Your task to perform on an android device: set an alarm Image 0: 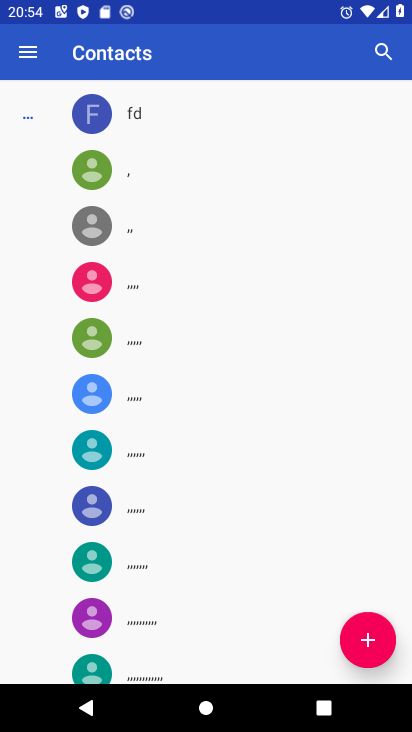
Step 0: press home button
Your task to perform on an android device: set an alarm Image 1: 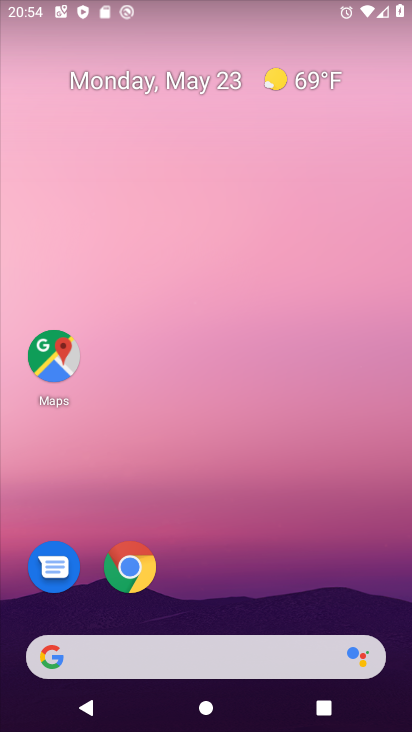
Step 1: drag from (244, 542) to (259, 6)
Your task to perform on an android device: set an alarm Image 2: 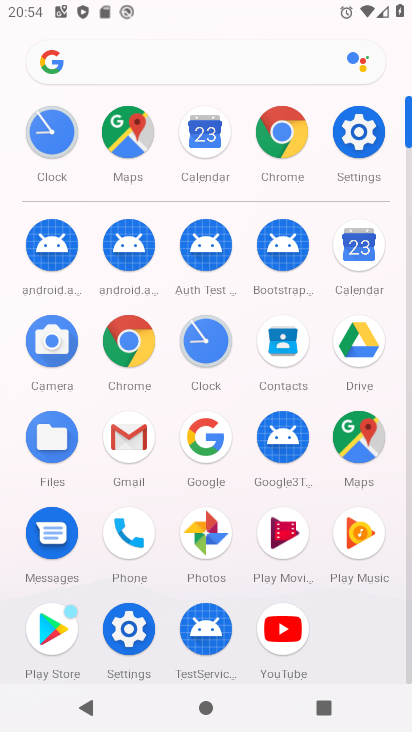
Step 2: click (224, 335)
Your task to perform on an android device: set an alarm Image 3: 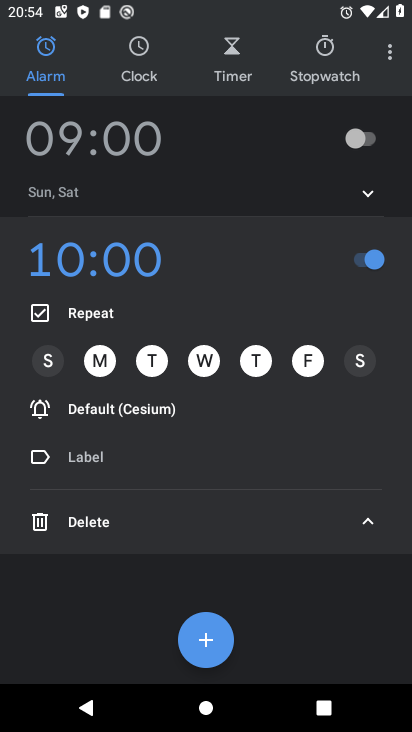
Step 3: click (99, 151)
Your task to perform on an android device: set an alarm Image 4: 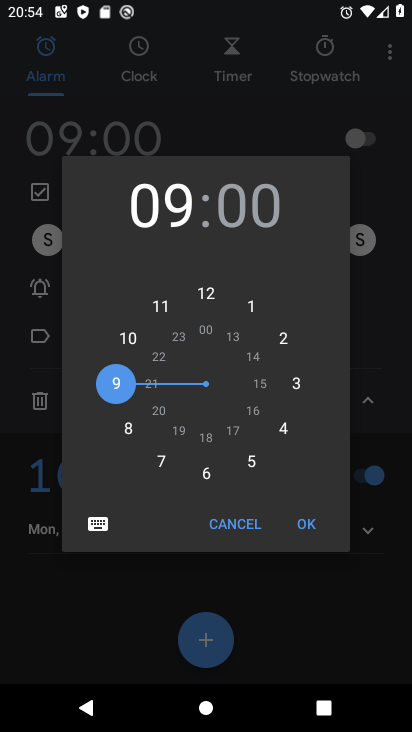
Step 4: click (214, 475)
Your task to perform on an android device: set an alarm Image 5: 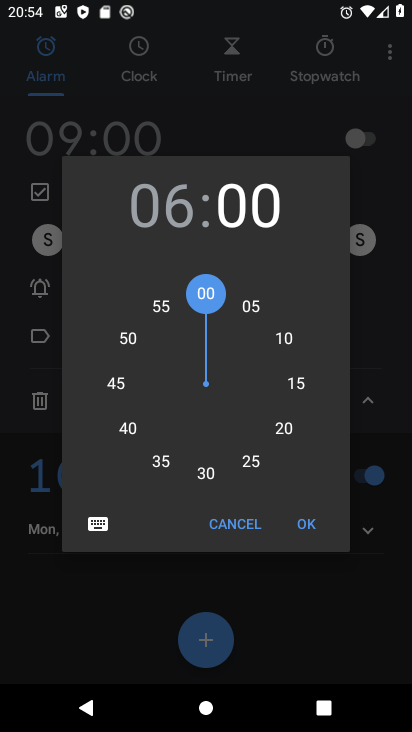
Step 5: click (281, 345)
Your task to perform on an android device: set an alarm Image 6: 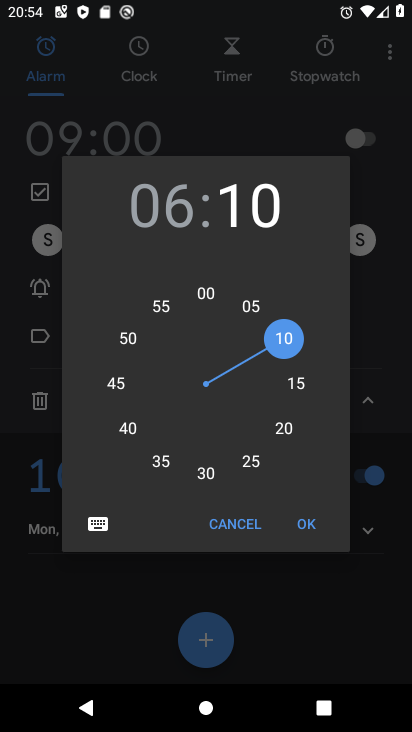
Step 6: click (301, 531)
Your task to perform on an android device: set an alarm Image 7: 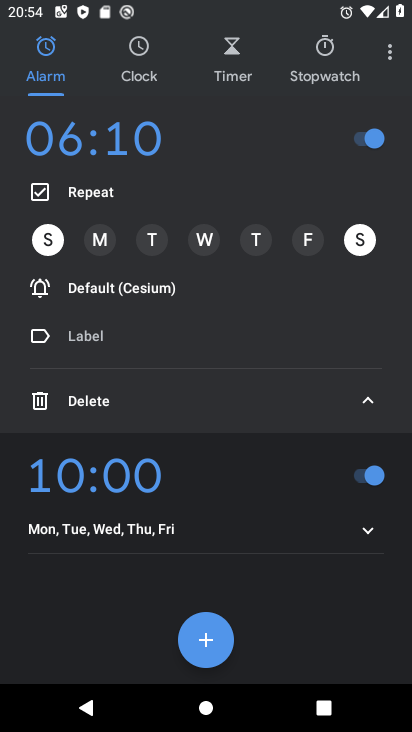
Step 7: task complete